Your task to perform on an android device: Go to settings Image 0: 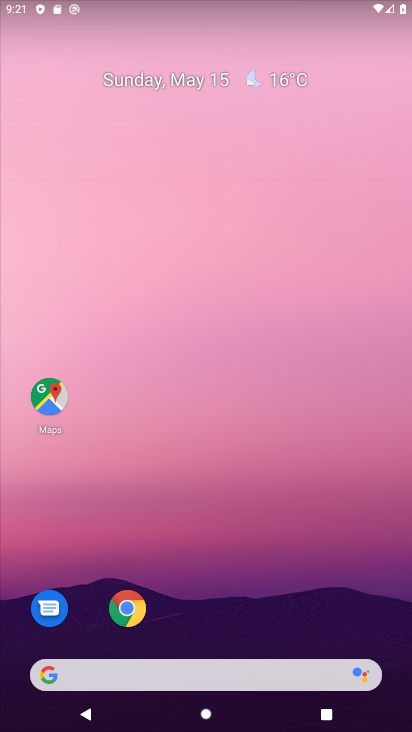
Step 0: drag from (259, 426) to (169, 87)
Your task to perform on an android device: Go to settings Image 1: 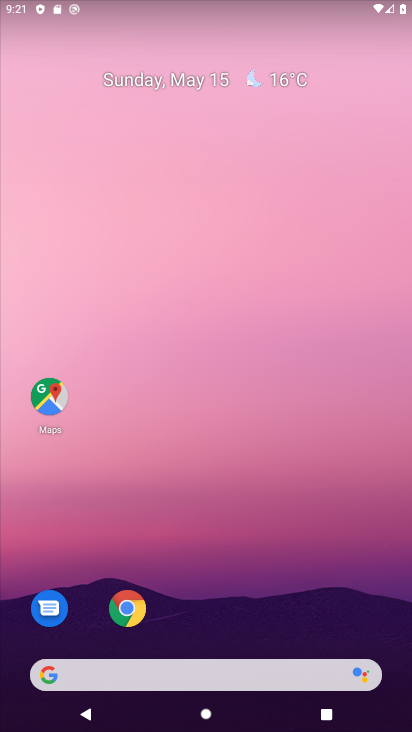
Step 1: drag from (238, 328) to (157, 4)
Your task to perform on an android device: Go to settings Image 2: 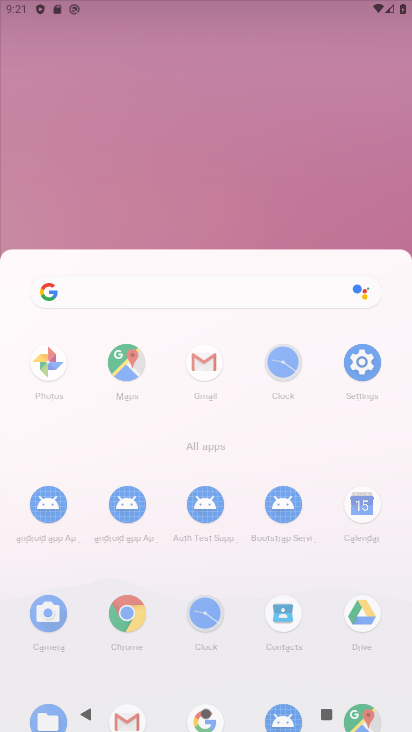
Step 2: drag from (211, 395) to (199, 8)
Your task to perform on an android device: Go to settings Image 3: 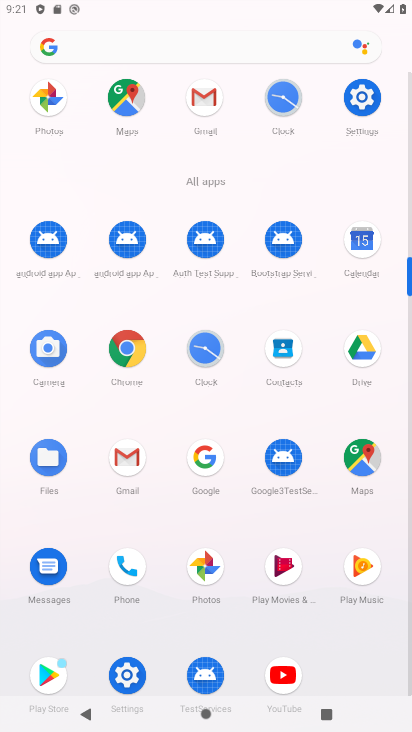
Step 3: click (360, 91)
Your task to perform on an android device: Go to settings Image 4: 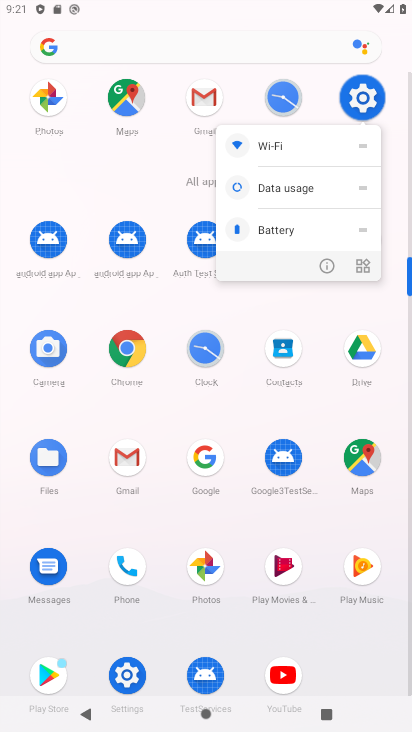
Step 4: click (369, 94)
Your task to perform on an android device: Go to settings Image 5: 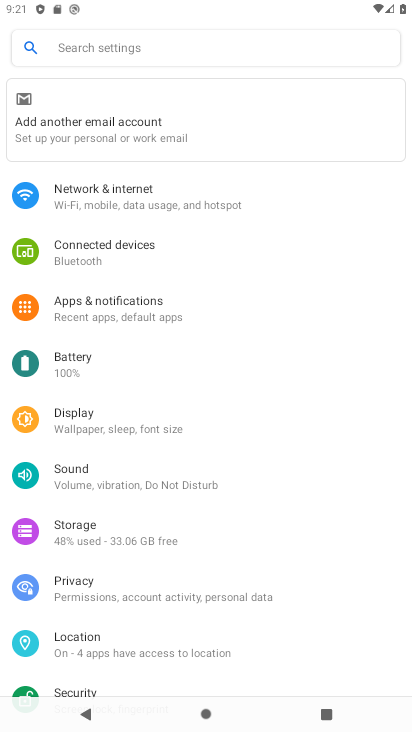
Step 5: task complete